Your task to perform on an android device: Open the calendar and show me this week's events? Image 0: 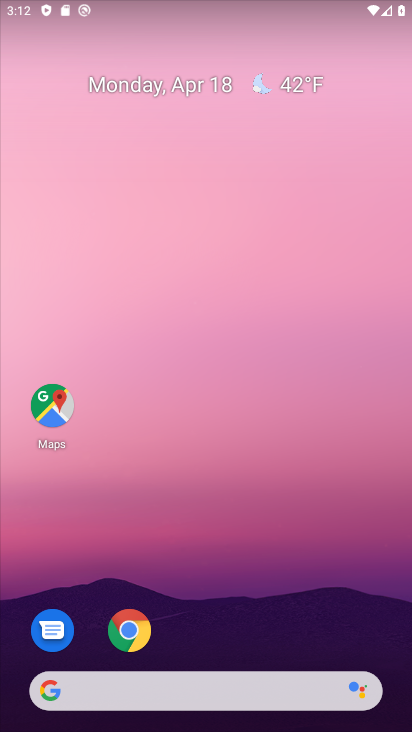
Step 0: drag from (254, 544) to (350, 268)
Your task to perform on an android device: Open the calendar and show me this week's events? Image 1: 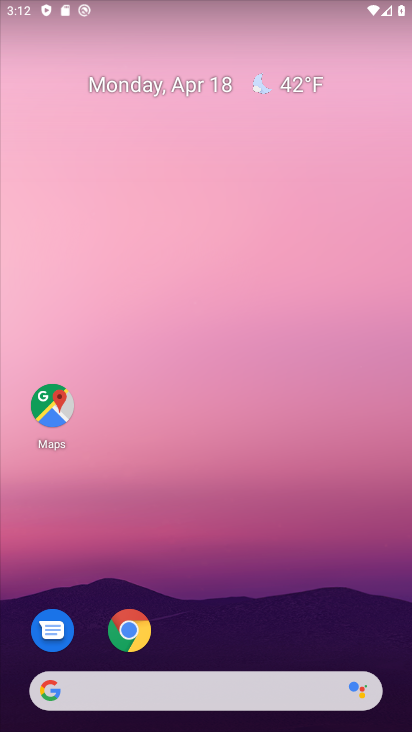
Step 1: drag from (221, 664) to (323, 272)
Your task to perform on an android device: Open the calendar and show me this week's events? Image 2: 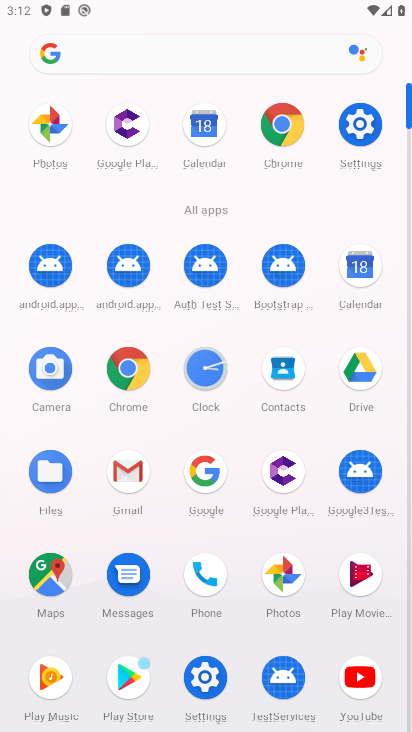
Step 2: click (200, 381)
Your task to perform on an android device: Open the calendar and show me this week's events? Image 3: 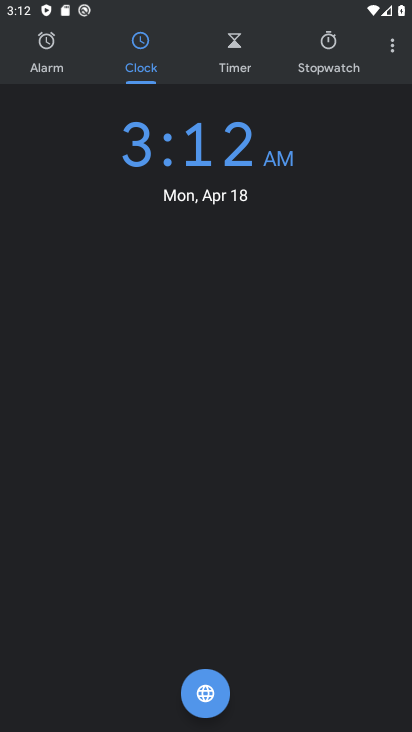
Step 3: press home button
Your task to perform on an android device: Open the calendar and show me this week's events? Image 4: 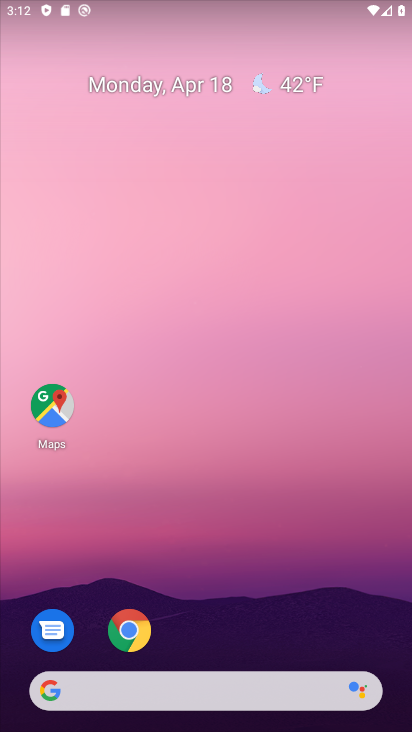
Step 4: drag from (243, 584) to (269, 257)
Your task to perform on an android device: Open the calendar and show me this week's events? Image 5: 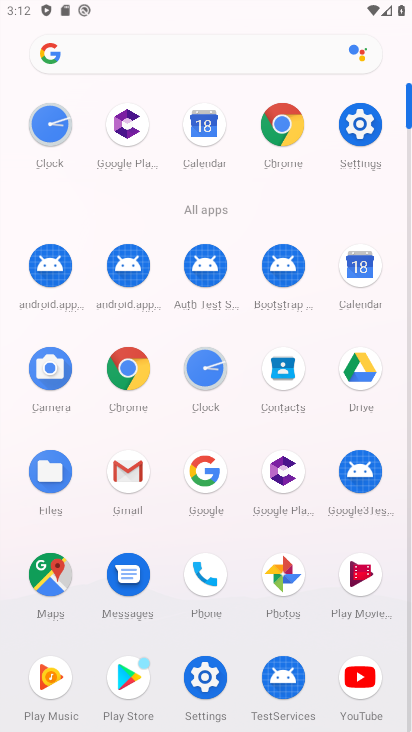
Step 5: click (350, 255)
Your task to perform on an android device: Open the calendar and show me this week's events? Image 6: 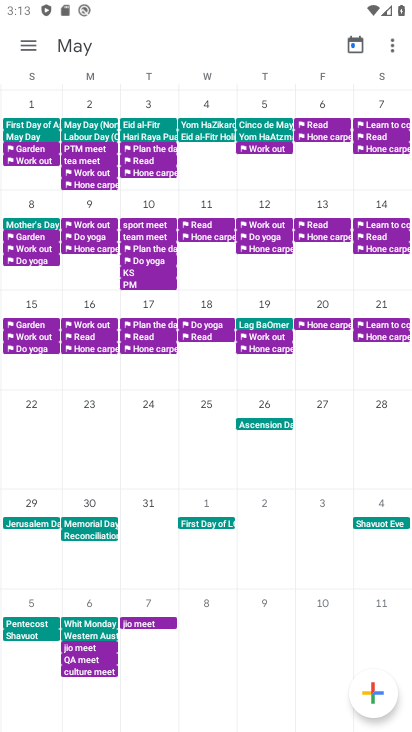
Step 6: task complete